Your task to perform on an android device: Clear the cart on newegg.com. Search for razer blade on newegg.com, select the first entry, add it to the cart, then select checkout. Image 0: 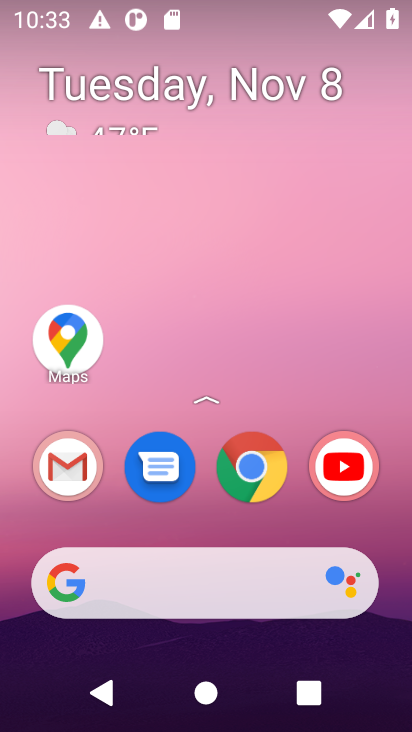
Step 0: click (166, 609)
Your task to perform on an android device: Clear the cart on newegg.com. Search for razer blade on newegg.com, select the first entry, add it to the cart, then select checkout. Image 1: 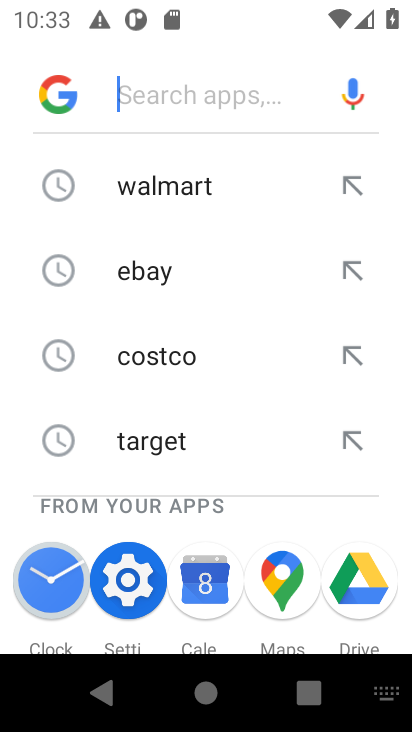
Step 1: type "newegg"
Your task to perform on an android device: Clear the cart on newegg.com. Search for razer blade on newegg.com, select the first entry, add it to the cart, then select checkout. Image 2: 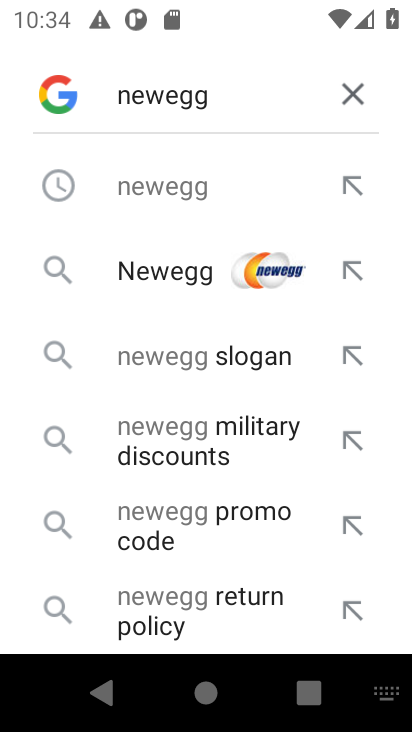
Step 2: click (191, 270)
Your task to perform on an android device: Clear the cart on newegg.com. Search for razer blade on newegg.com, select the first entry, add it to the cart, then select checkout. Image 3: 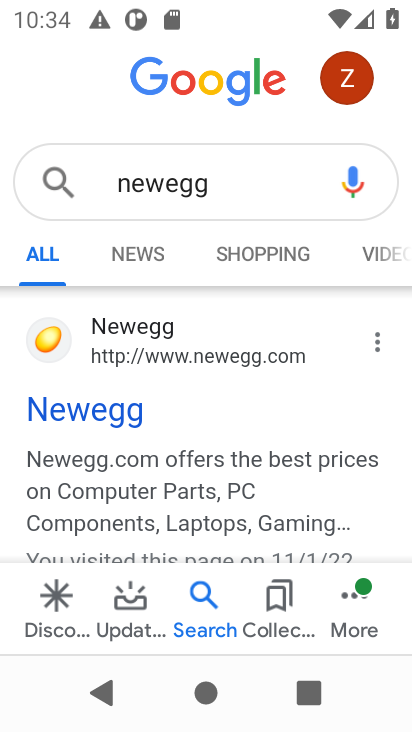
Step 3: click (134, 419)
Your task to perform on an android device: Clear the cart on newegg.com. Search for razer blade on newegg.com, select the first entry, add it to the cart, then select checkout. Image 4: 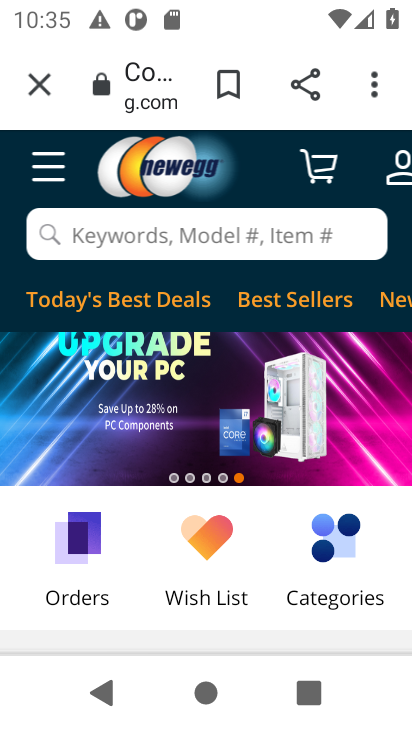
Step 4: task complete